Your task to perform on an android device: What is the recent news? Image 0: 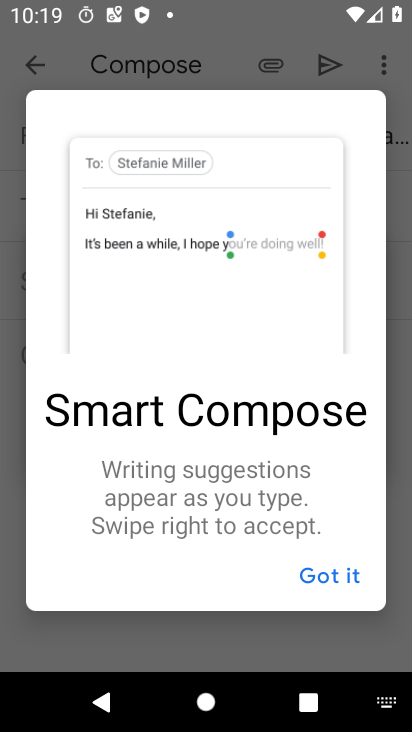
Step 0: press home button
Your task to perform on an android device: What is the recent news? Image 1: 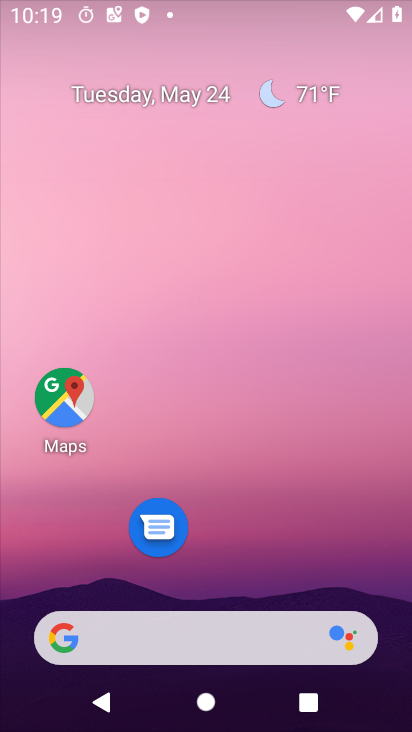
Step 1: drag from (237, 533) to (252, 34)
Your task to perform on an android device: What is the recent news? Image 2: 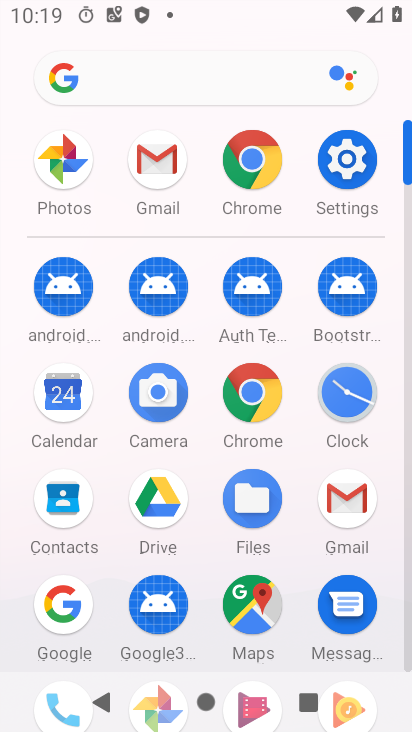
Step 2: click (61, 620)
Your task to perform on an android device: What is the recent news? Image 3: 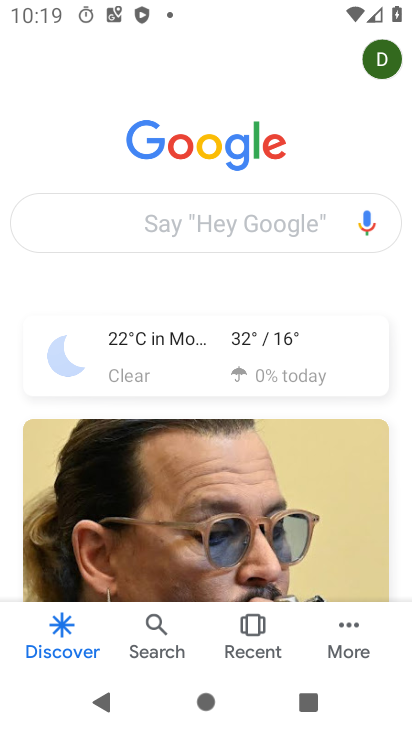
Step 3: click (176, 221)
Your task to perform on an android device: What is the recent news? Image 4: 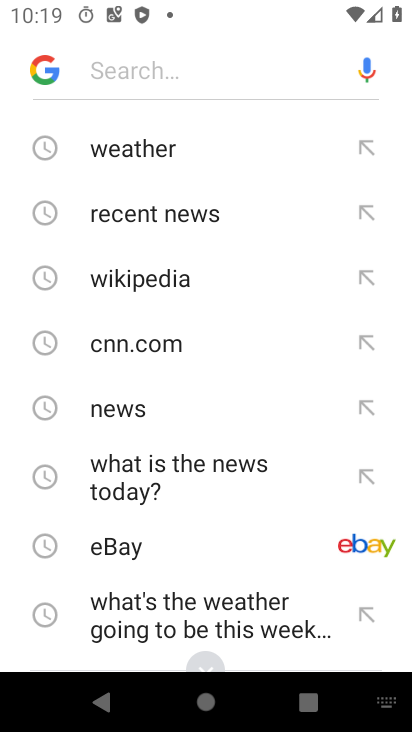
Step 4: click (148, 215)
Your task to perform on an android device: What is the recent news? Image 5: 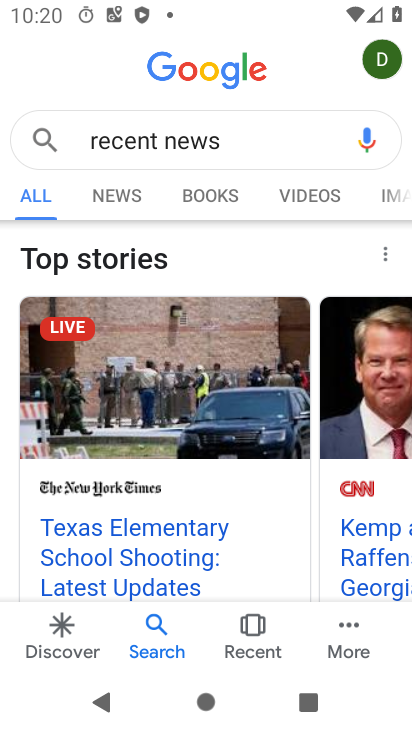
Step 5: task complete